Your task to perform on an android device: Go to eBay Image 0: 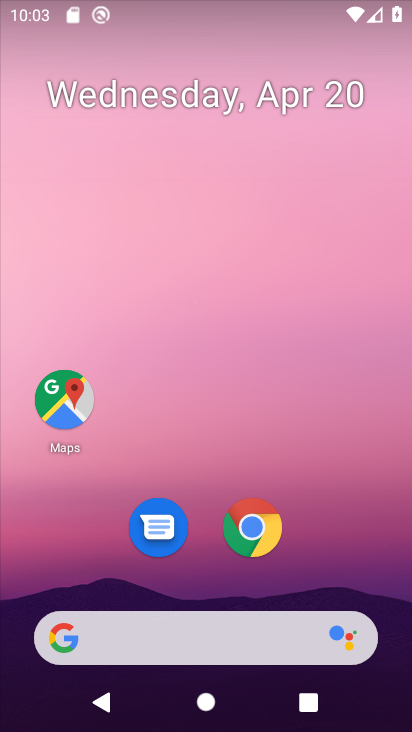
Step 0: click (259, 520)
Your task to perform on an android device: Go to eBay Image 1: 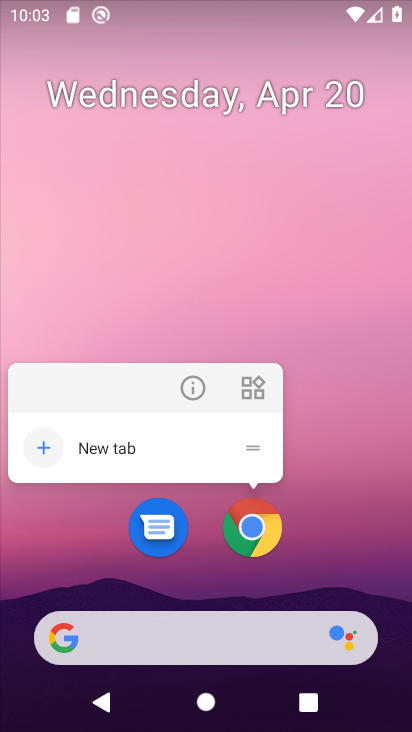
Step 1: click (263, 531)
Your task to perform on an android device: Go to eBay Image 2: 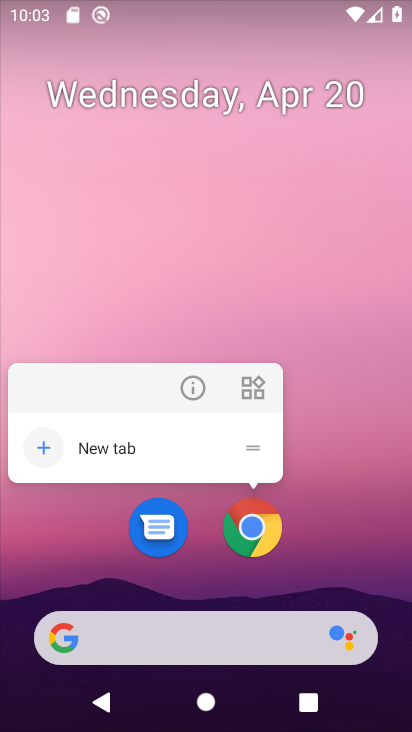
Step 2: click (263, 531)
Your task to perform on an android device: Go to eBay Image 3: 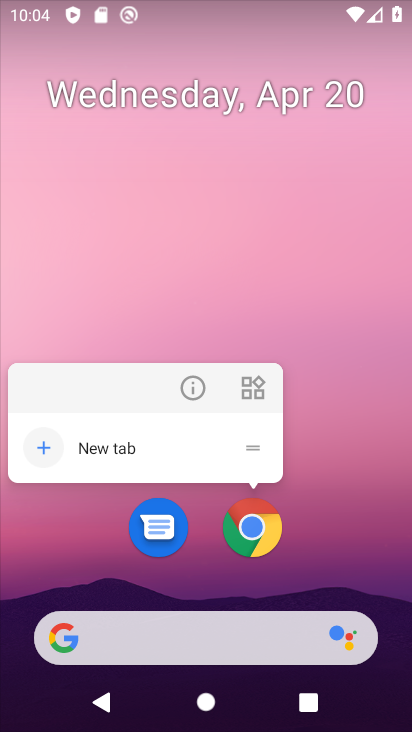
Step 3: click (265, 529)
Your task to perform on an android device: Go to eBay Image 4: 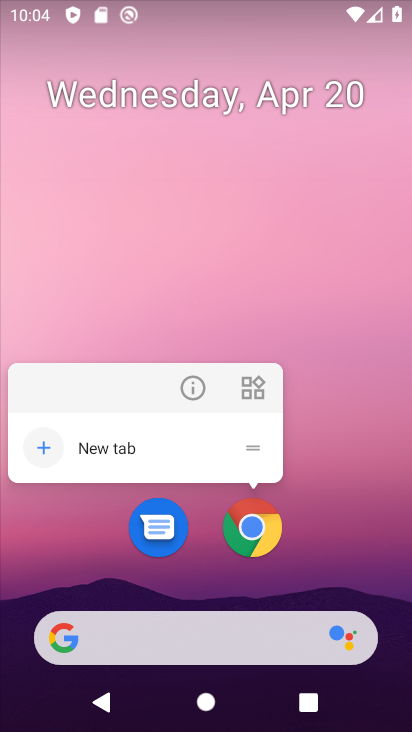
Step 4: click (266, 533)
Your task to perform on an android device: Go to eBay Image 5: 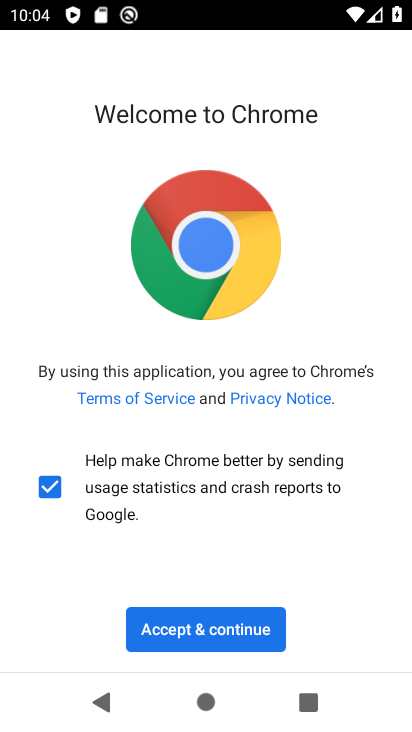
Step 5: click (206, 596)
Your task to perform on an android device: Go to eBay Image 6: 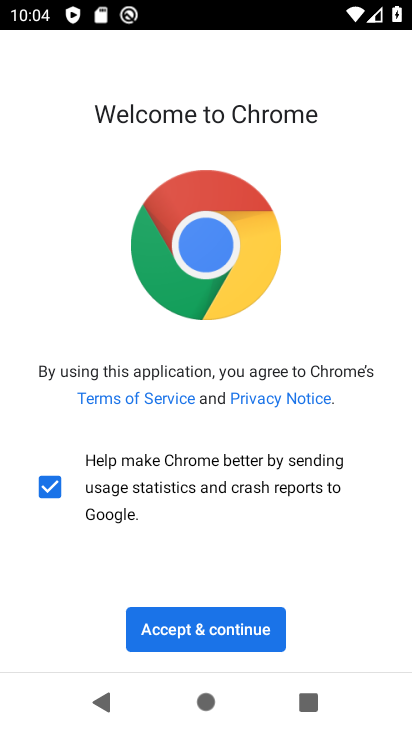
Step 6: click (208, 620)
Your task to perform on an android device: Go to eBay Image 7: 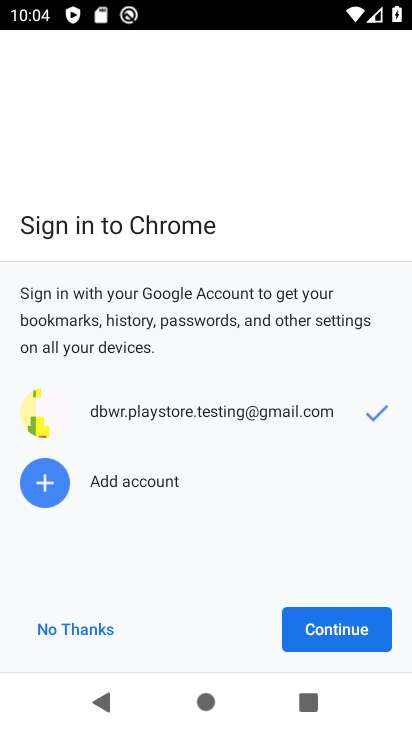
Step 7: click (321, 619)
Your task to perform on an android device: Go to eBay Image 8: 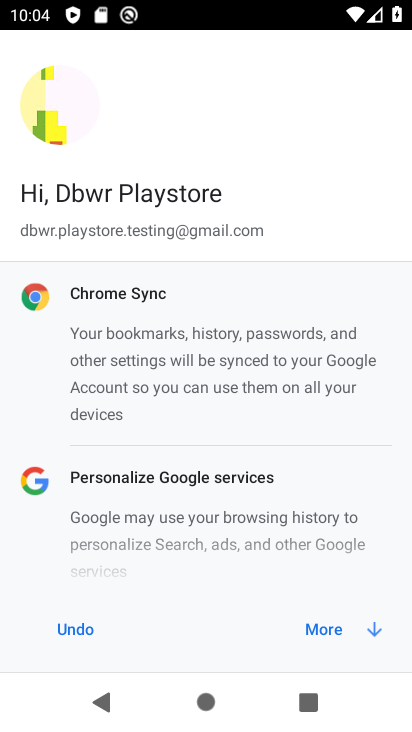
Step 8: click (329, 626)
Your task to perform on an android device: Go to eBay Image 9: 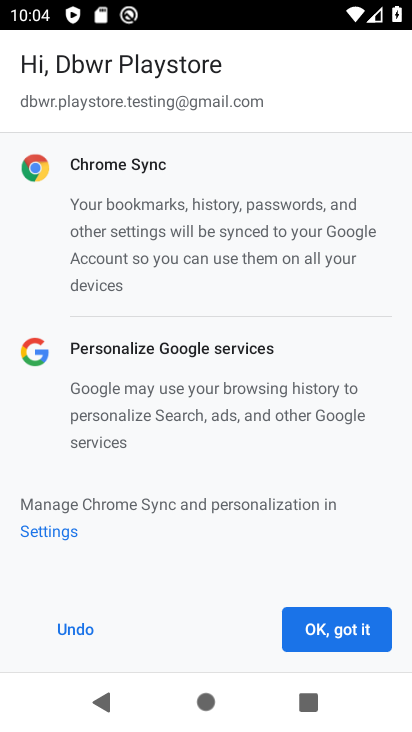
Step 9: click (329, 626)
Your task to perform on an android device: Go to eBay Image 10: 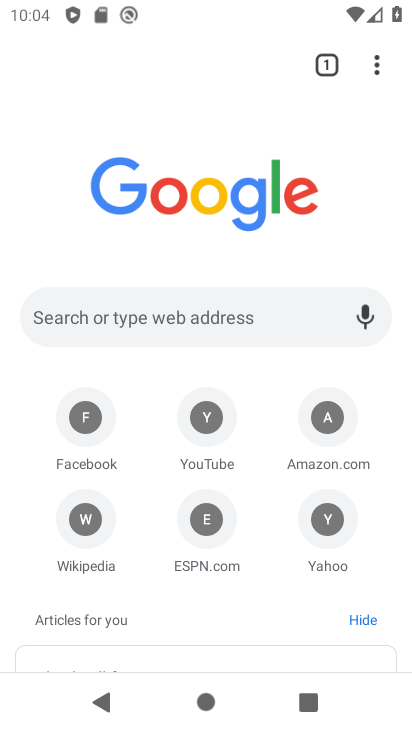
Step 10: click (189, 316)
Your task to perform on an android device: Go to eBay Image 11: 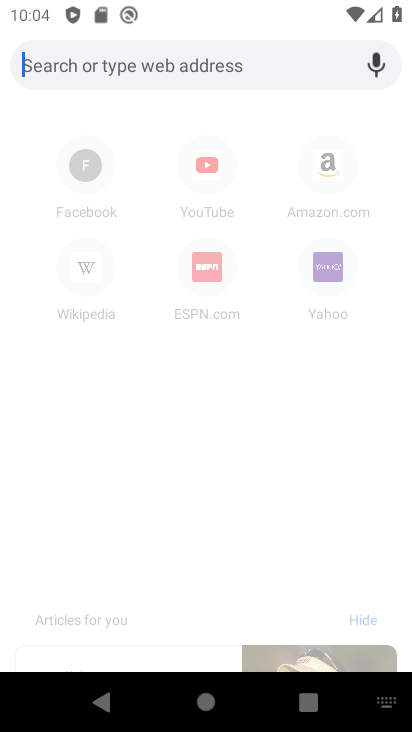
Step 11: type "eBay"
Your task to perform on an android device: Go to eBay Image 12: 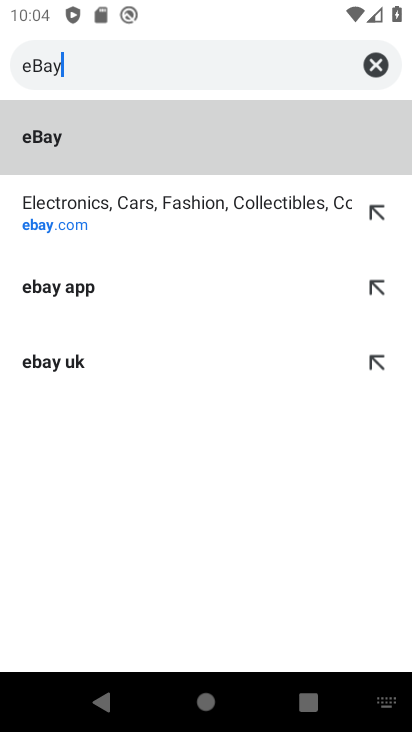
Step 12: click (153, 157)
Your task to perform on an android device: Go to eBay Image 13: 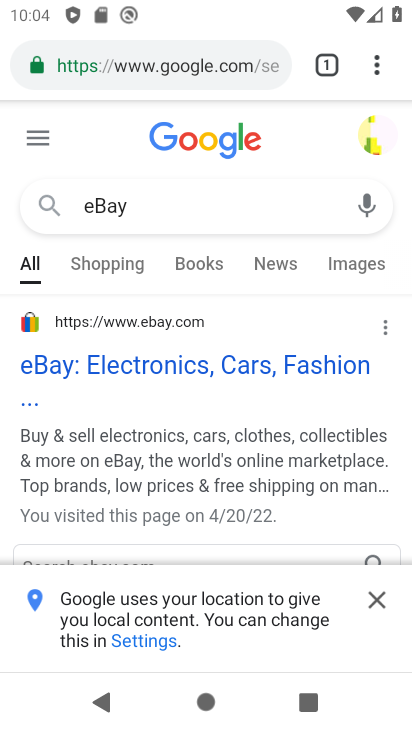
Step 13: task complete